Your task to perform on an android device: find photos in the google photos app Image 0: 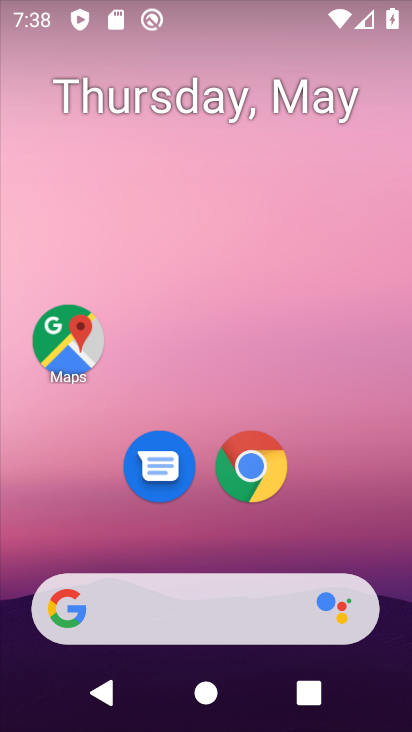
Step 0: drag from (385, 526) to (236, 14)
Your task to perform on an android device: find photos in the google photos app Image 1: 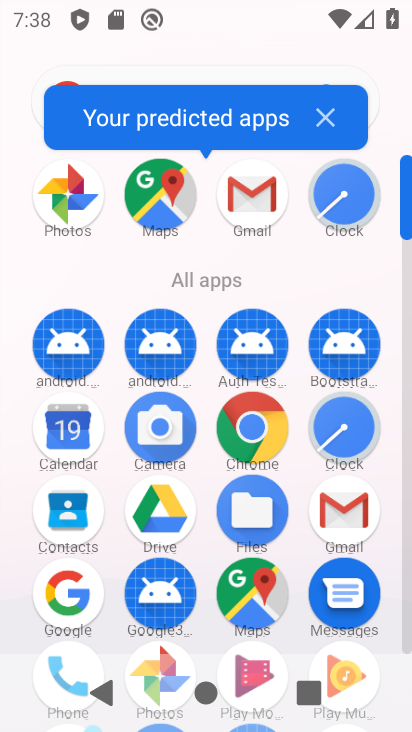
Step 1: click (159, 647)
Your task to perform on an android device: find photos in the google photos app Image 2: 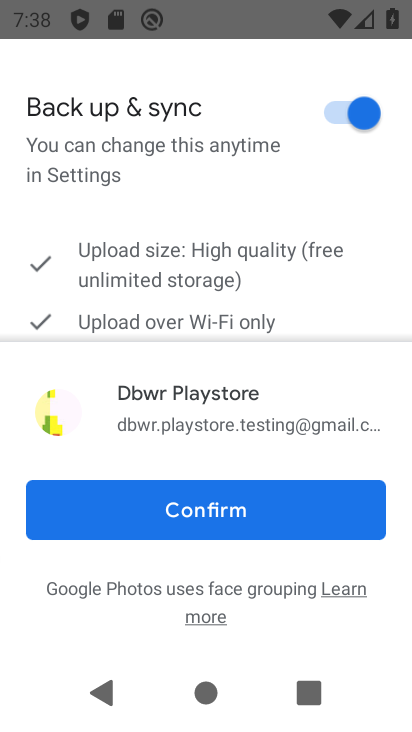
Step 2: click (204, 505)
Your task to perform on an android device: find photos in the google photos app Image 3: 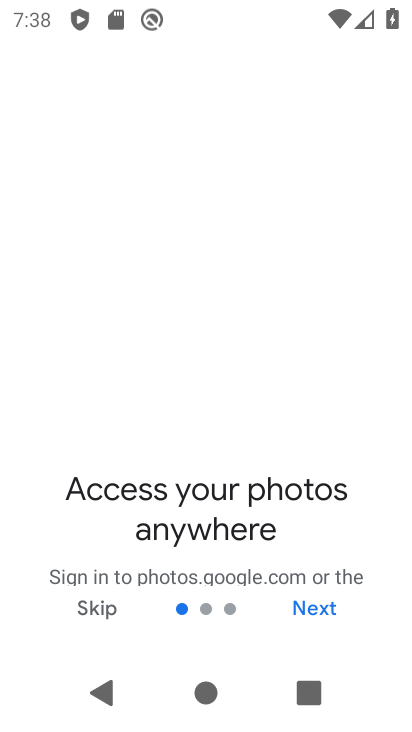
Step 3: click (323, 601)
Your task to perform on an android device: find photos in the google photos app Image 4: 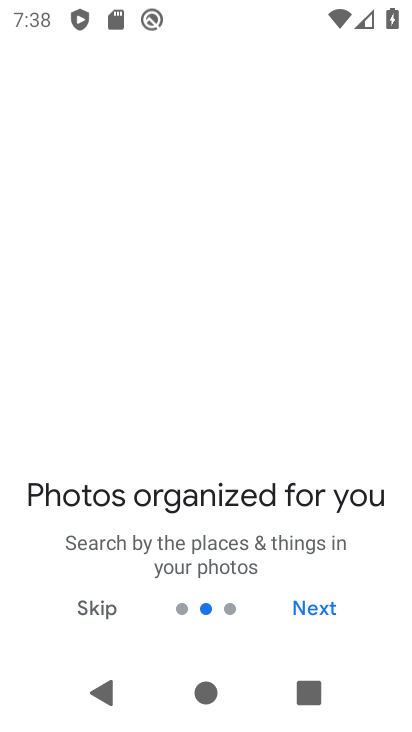
Step 4: click (315, 606)
Your task to perform on an android device: find photos in the google photos app Image 5: 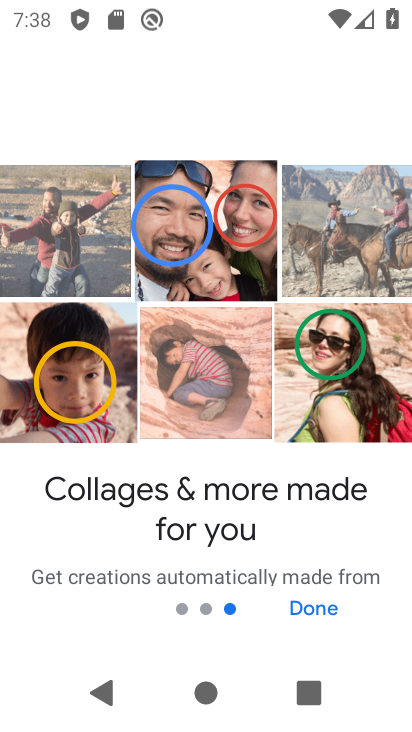
Step 5: click (315, 606)
Your task to perform on an android device: find photos in the google photos app Image 6: 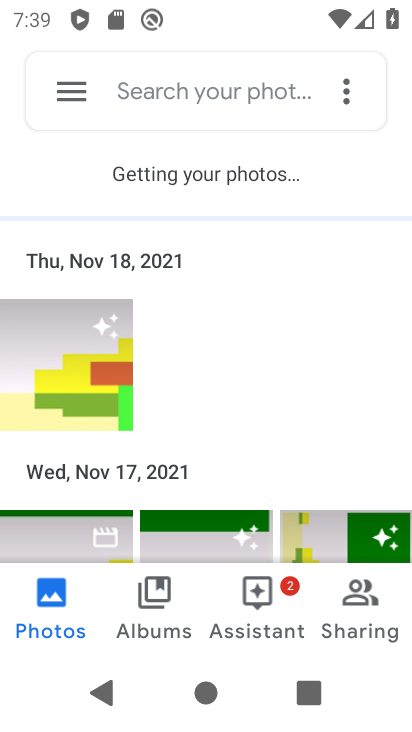
Step 6: task complete